Your task to perform on an android device: open a bookmark in the chrome app Image 0: 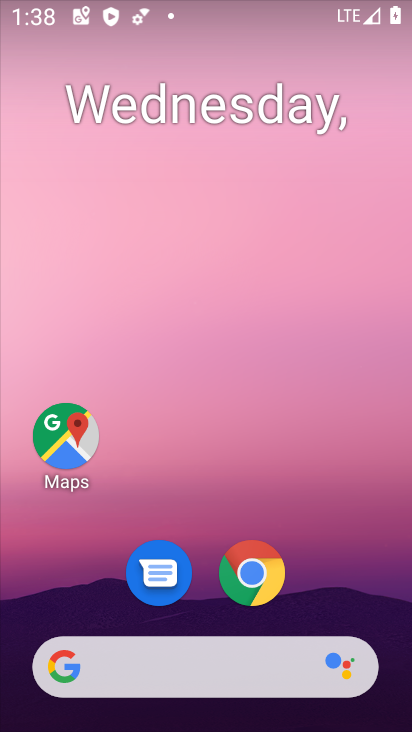
Step 0: click (249, 573)
Your task to perform on an android device: open a bookmark in the chrome app Image 1: 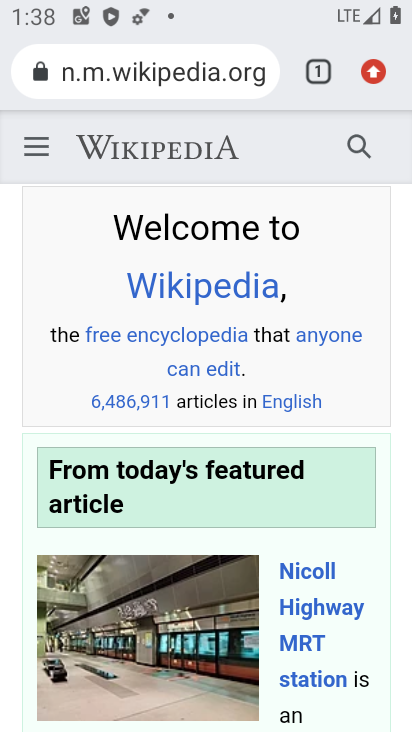
Step 1: click (373, 69)
Your task to perform on an android device: open a bookmark in the chrome app Image 2: 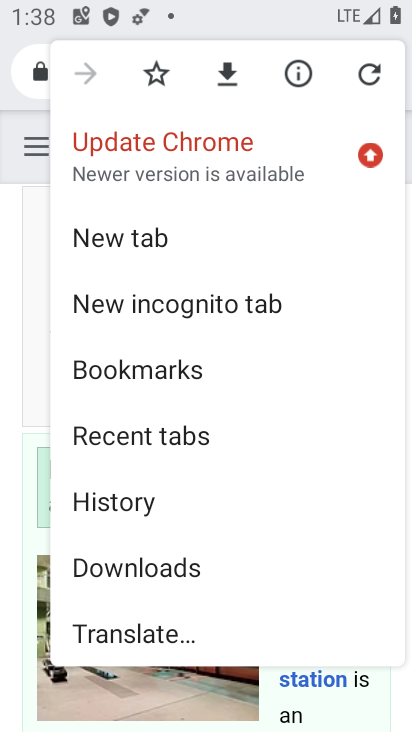
Step 2: click (182, 375)
Your task to perform on an android device: open a bookmark in the chrome app Image 3: 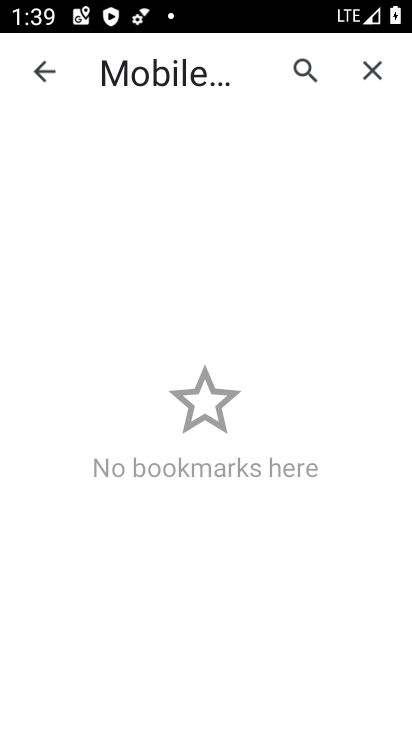
Step 3: task complete